Your task to perform on an android device: Open Chrome and go to the settings page Image 0: 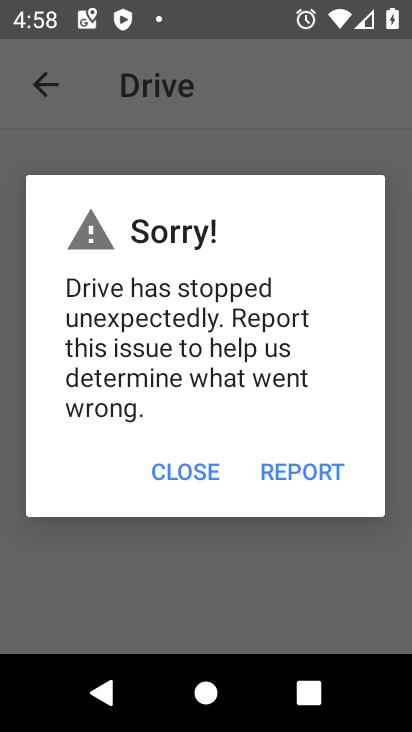
Step 0: press home button
Your task to perform on an android device: Open Chrome and go to the settings page Image 1: 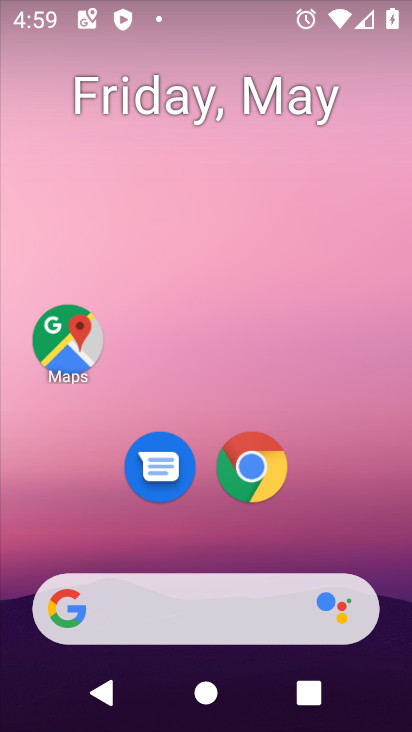
Step 1: click (256, 468)
Your task to perform on an android device: Open Chrome and go to the settings page Image 2: 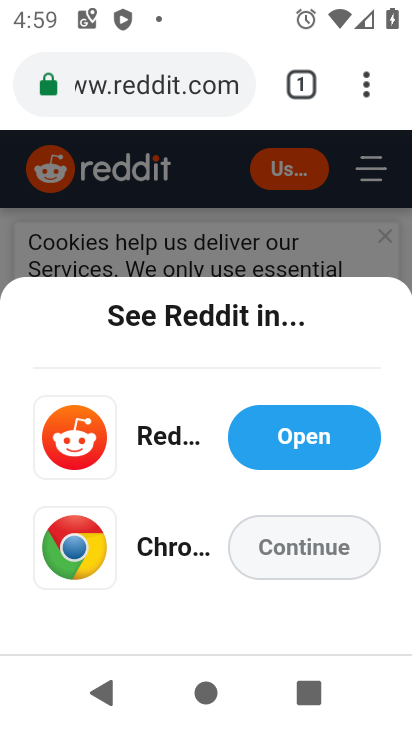
Step 2: click (365, 79)
Your task to perform on an android device: Open Chrome and go to the settings page Image 3: 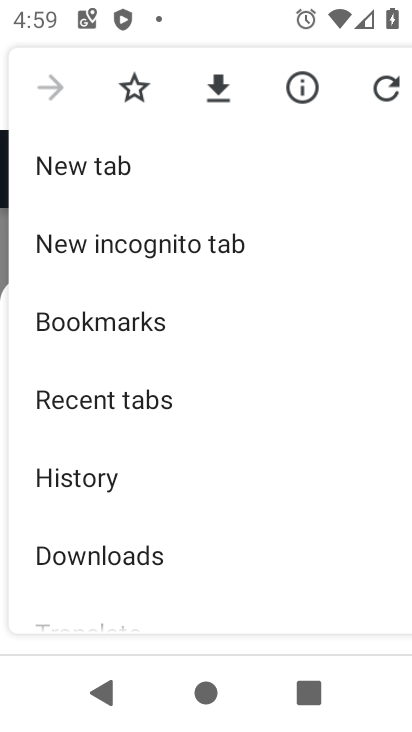
Step 3: drag from (167, 492) to (335, 12)
Your task to perform on an android device: Open Chrome and go to the settings page Image 4: 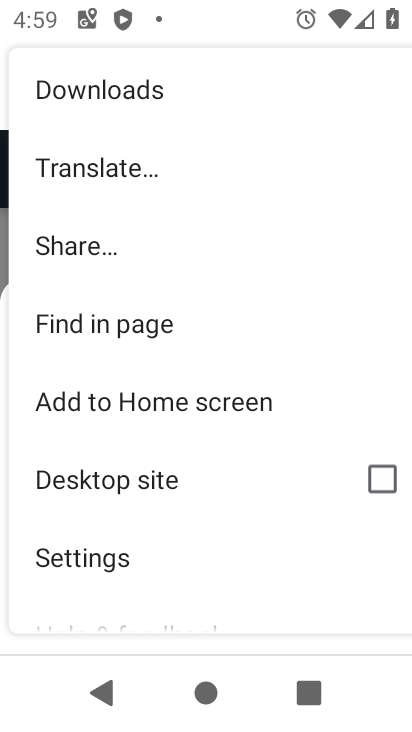
Step 4: click (75, 562)
Your task to perform on an android device: Open Chrome and go to the settings page Image 5: 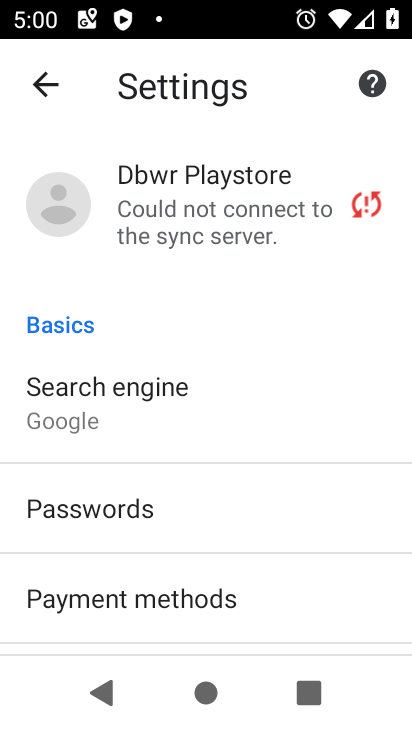
Step 5: task complete